Your task to perform on an android device: Open CNN.com Image 0: 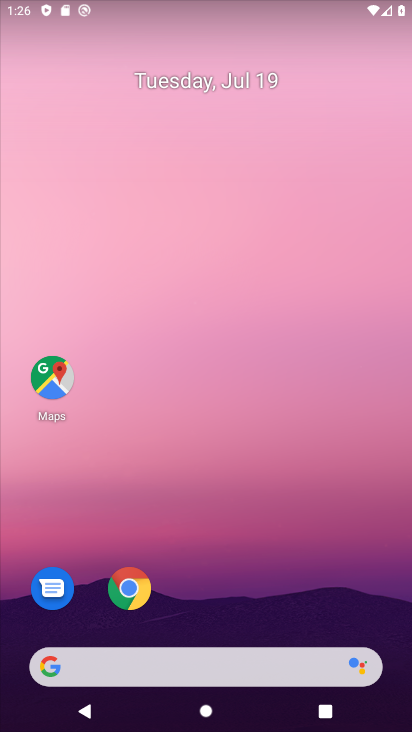
Step 0: click (131, 582)
Your task to perform on an android device: Open CNN.com Image 1: 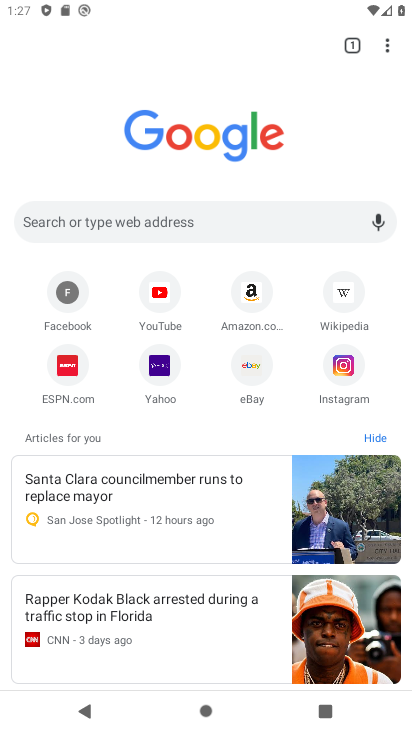
Step 1: click (229, 220)
Your task to perform on an android device: Open CNN.com Image 2: 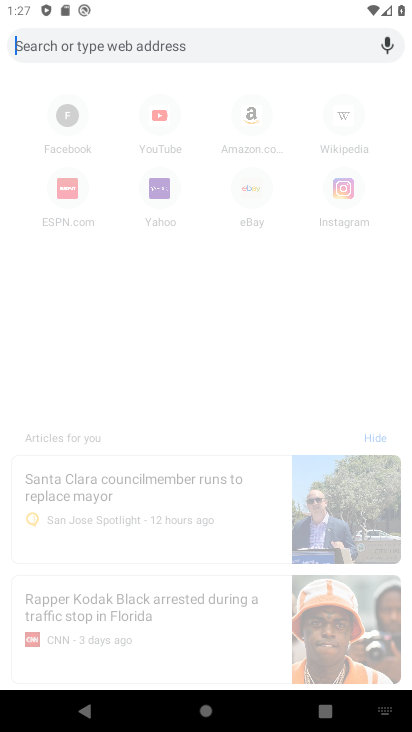
Step 2: type "cnn.com"
Your task to perform on an android device: Open CNN.com Image 3: 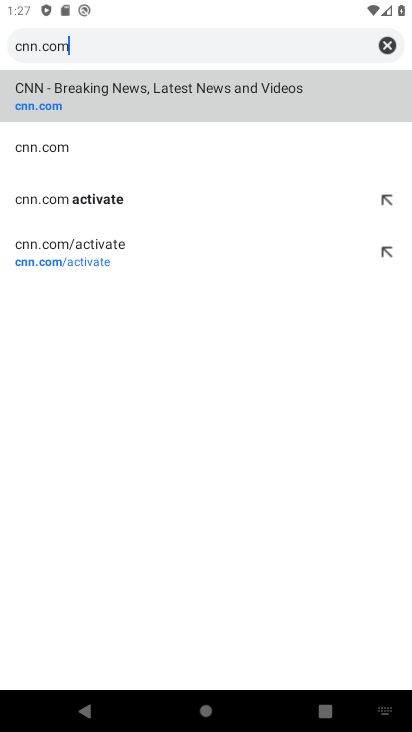
Step 3: click (156, 98)
Your task to perform on an android device: Open CNN.com Image 4: 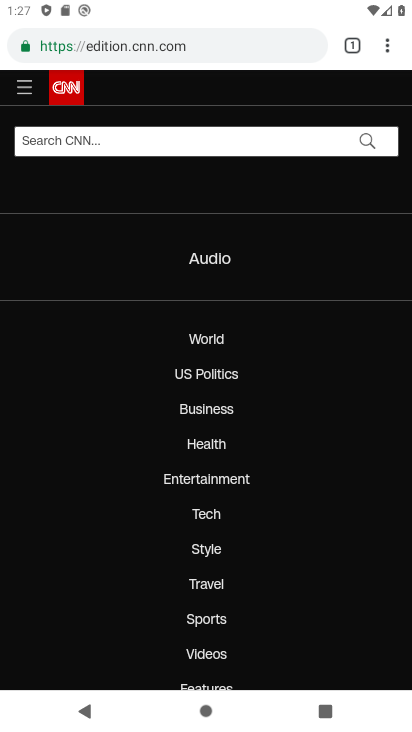
Step 4: task complete